Your task to perform on an android device: Open Google Chrome and open the bookmarks view Image 0: 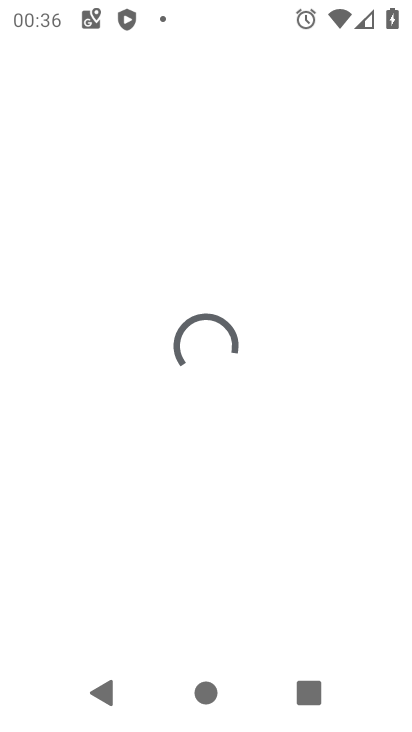
Step 0: drag from (205, 538) to (346, 253)
Your task to perform on an android device: Open Google Chrome and open the bookmarks view Image 1: 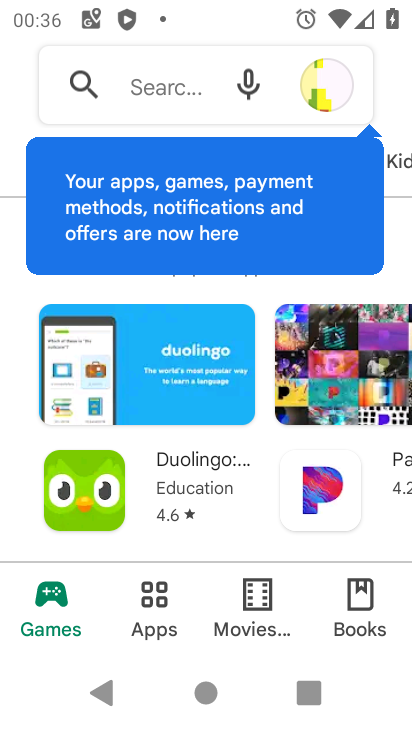
Step 1: press home button
Your task to perform on an android device: Open Google Chrome and open the bookmarks view Image 2: 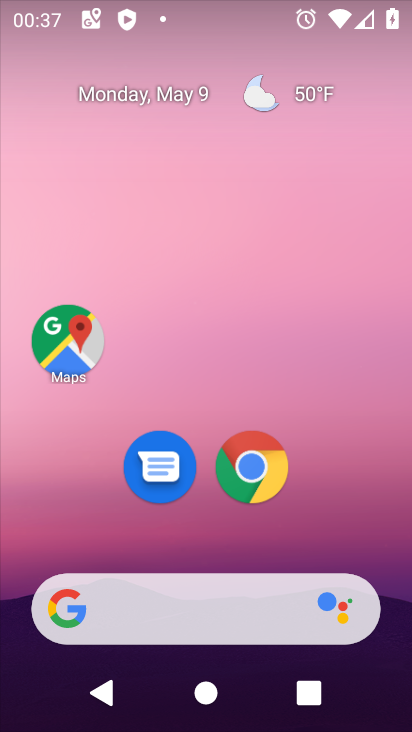
Step 2: click (246, 454)
Your task to perform on an android device: Open Google Chrome and open the bookmarks view Image 3: 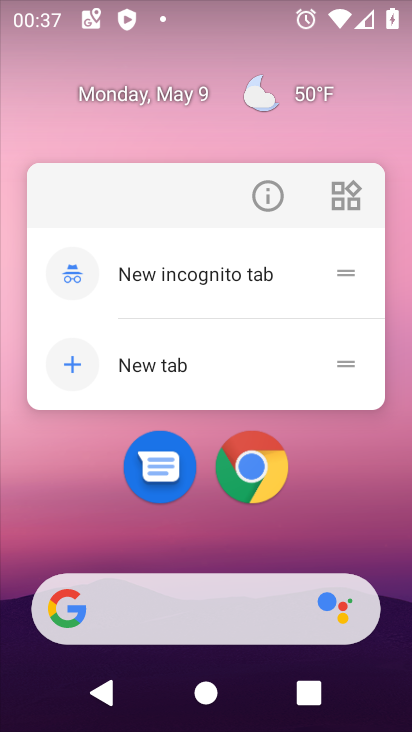
Step 3: click (249, 463)
Your task to perform on an android device: Open Google Chrome and open the bookmarks view Image 4: 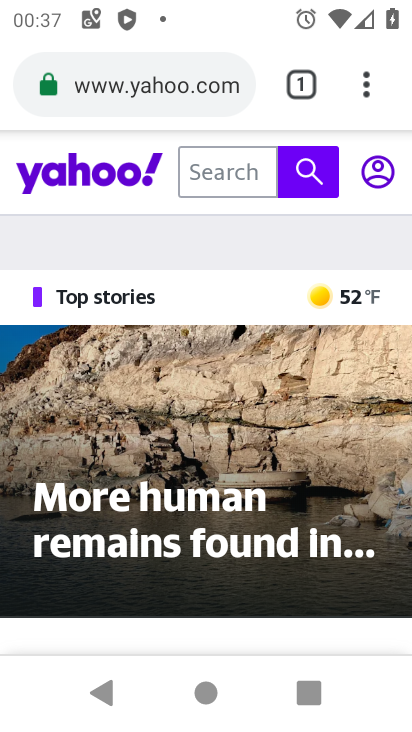
Step 4: click (367, 78)
Your task to perform on an android device: Open Google Chrome and open the bookmarks view Image 5: 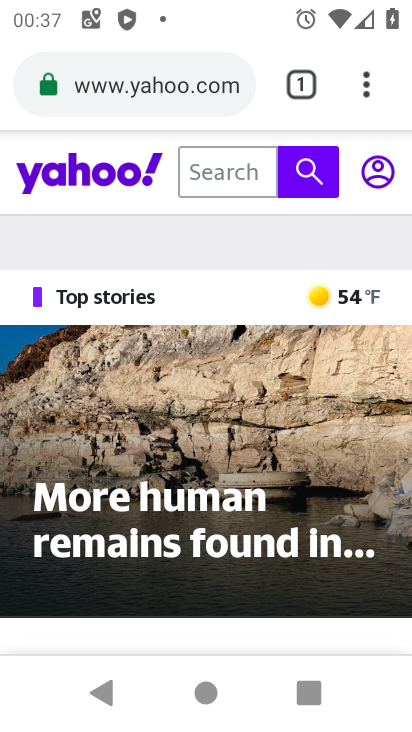
Step 5: click (362, 78)
Your task to perform on an android device: Open Google Chrome and open the bookmarks view Image 6: 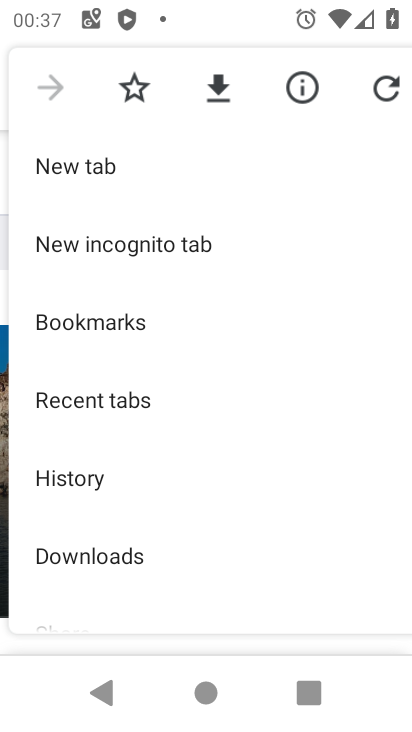
Step 6: drag from (206, 584) to (259, 131)
Your task to perform on an android device: Open Google Chrome and open the bookmarks view Image 7: 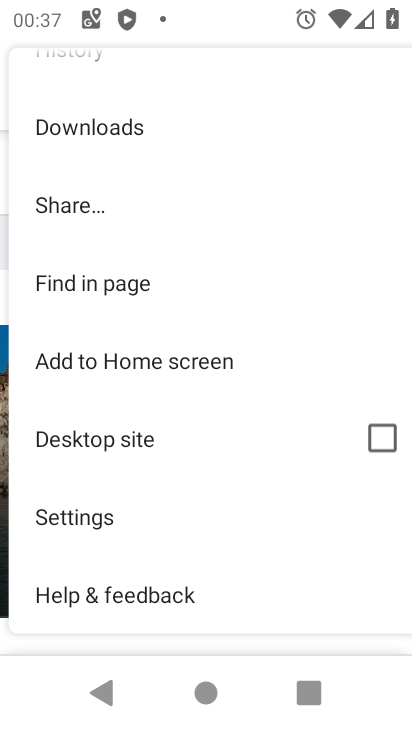
Step 7: drag from (135, 163) to (184, 562)
Your task to perform on an android device: Open Google Chrome and open the bookmarks view Image 8: 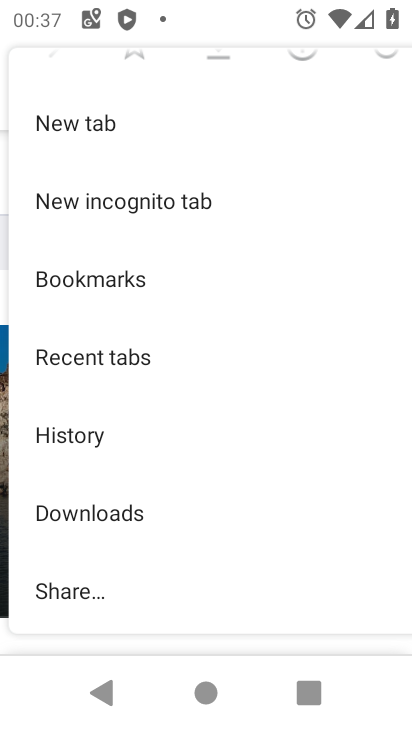
Step 8: click (151, 278)
Your task to perform on an android device: Open Google Chrome and open the bookmarks view Image 9: 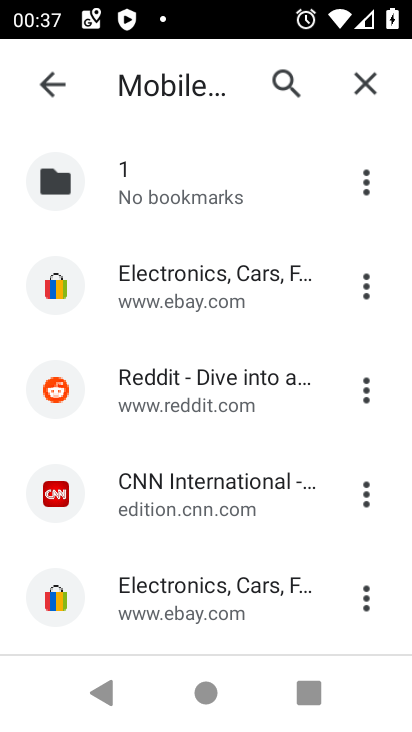
Step 9: click (99, 479)
Your task to perform on an android device: Open Google Chrome and open the bookmarks view Image 10: 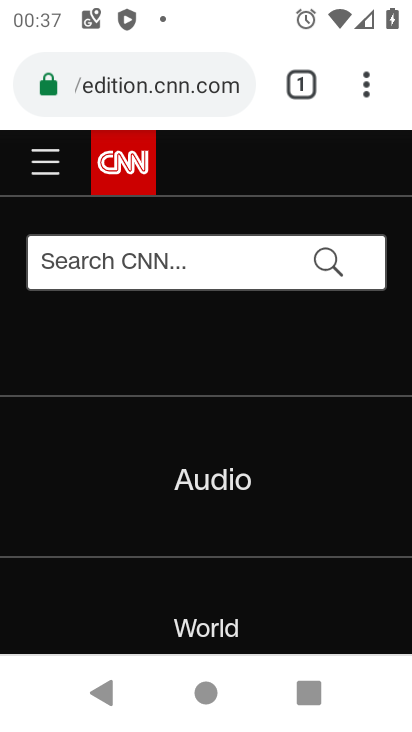
Step 10: task complete